Your task to perform on an android device: Open Chrome and go to settings Image 0: 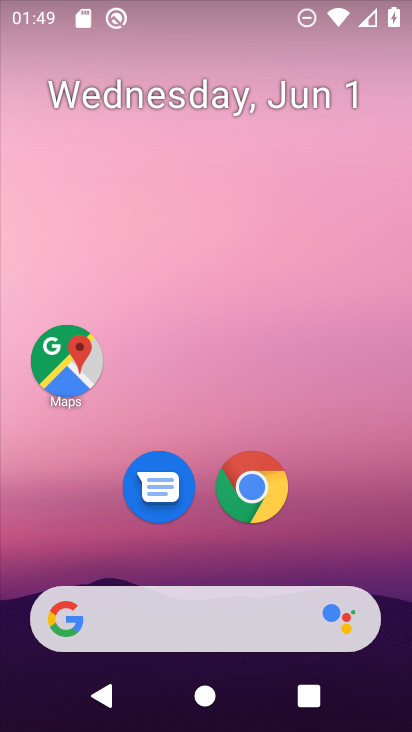
Step 0: drag from (312, 539) to (320, 215)
Your task to perform on an android device: Open Chrome and go to settings Image 1: 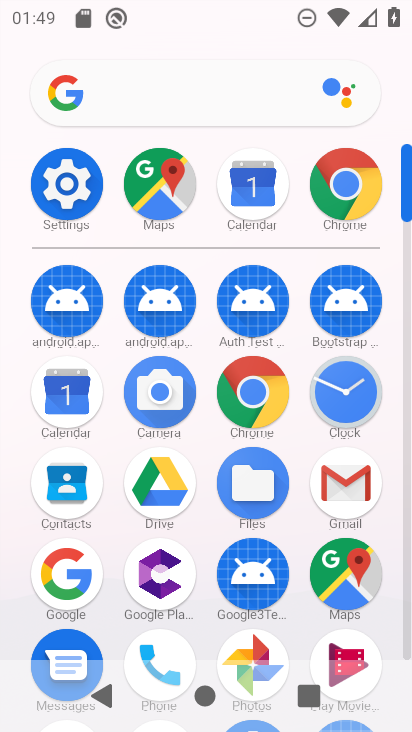
Step 1: click (356, 183)
Your task to perform on an android device: Open Chrome and go to settings Image 2: 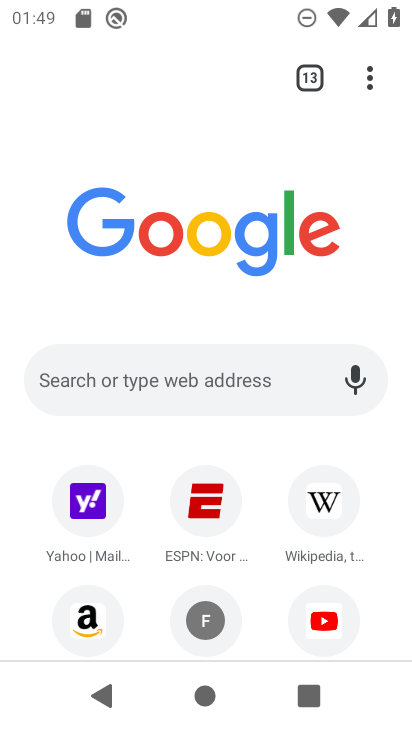
Step 2: click (372, 71)
Your task to perform on an android device: Open Chrome and go to settings Image 3: 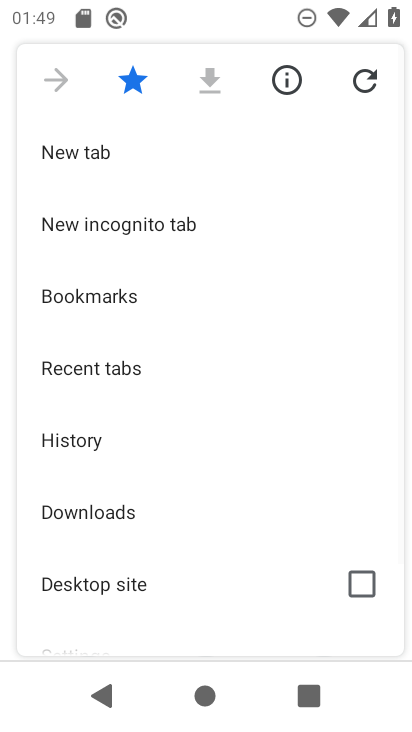
Step 3: drag from (207, 491) to (191, 235)
Your task to perform on an android device: Open Chrome and go to settings Image 4: 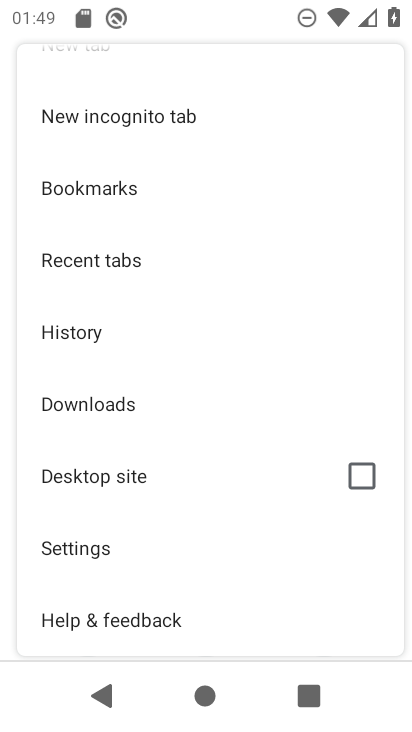
Step 4: click (139, 544)
Your task to perform on an android device: Open Chrome and go to settings Image 5: 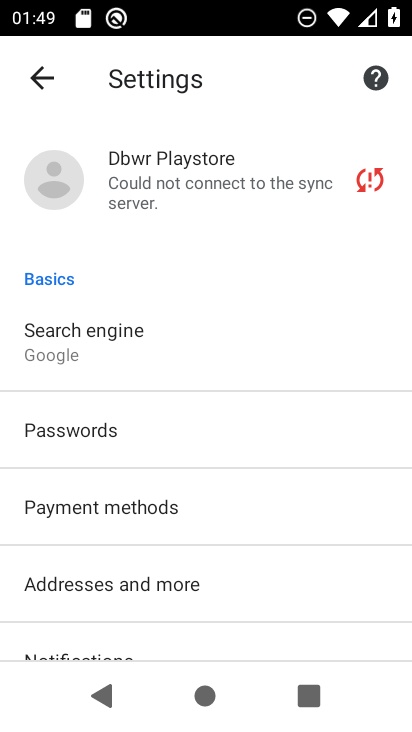
Step 5: task complete